Your task to perform on an android device: turn off javascript in the chrome app Image 0: 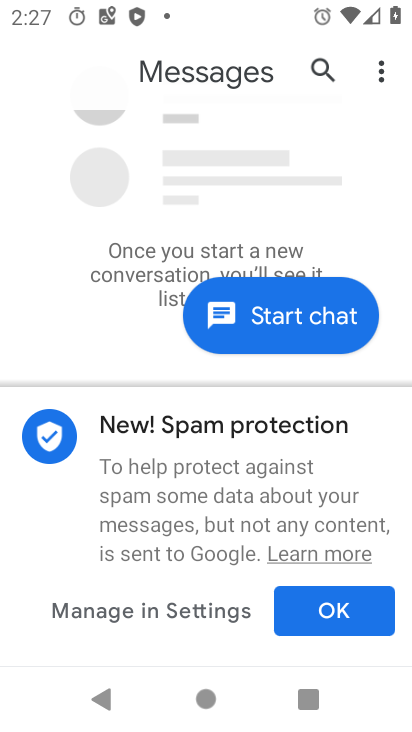
Step 0: press home button
Your task to perform on an android device: turn off javascript in the chrome app Image 1: 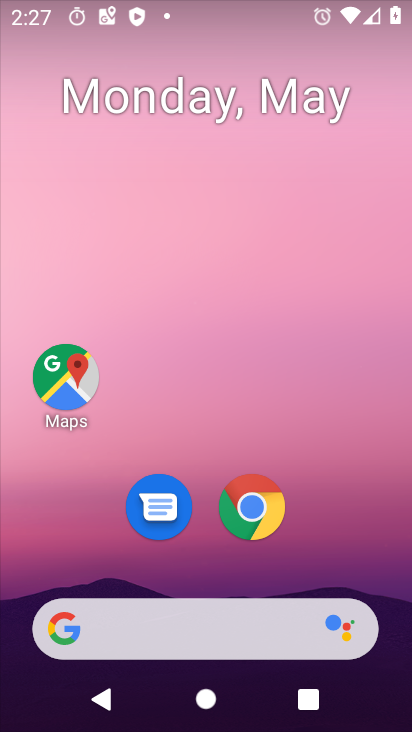
Step 1: click (262, 512)
Your task to perform on an android device: turn off javascript in the chrome app Image 2: 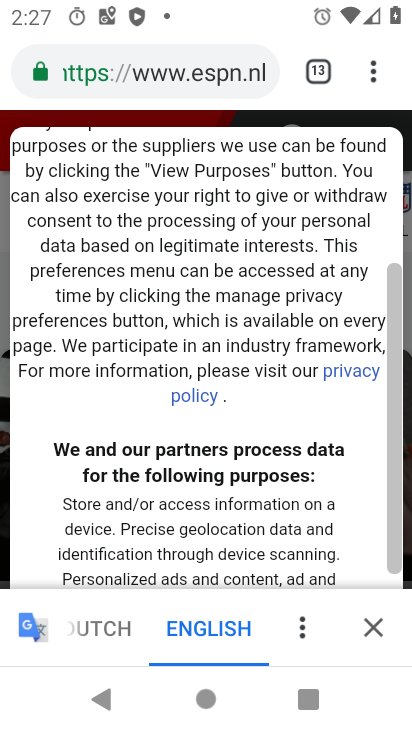
Step 2: click (371, 81)
Your task to perform on an android device: turn off javascript in the chrome app Image 3: 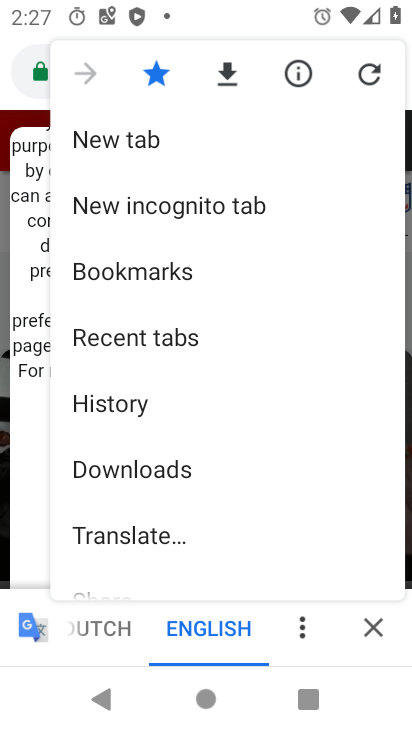
Step 3: drag from (166, 571) to (156, 157)
Your task to perform on an android device: turn off javascript in the chrome app Image 4: 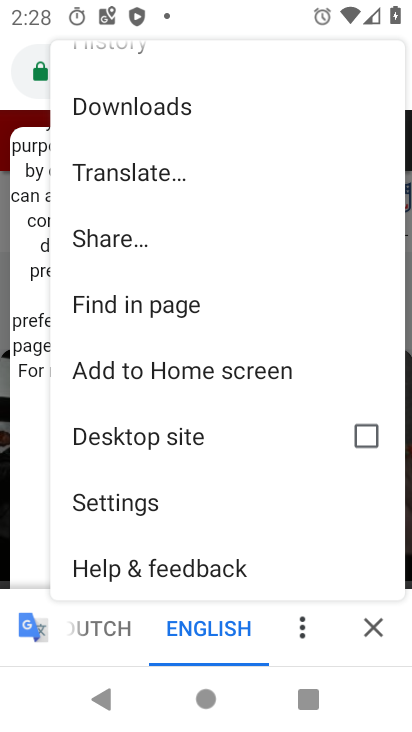
Step 4: click (117, 502)
Your task to perform on an android device: turn off javascript in the chrome app Image 5: 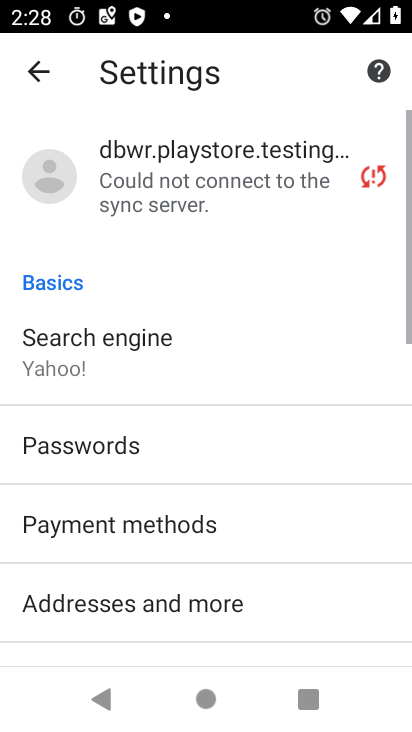
Step 5: drag from (282, 622) to (288, 175)
Your task to perform on an android device: turn off javascript in the chrome app Image 6: 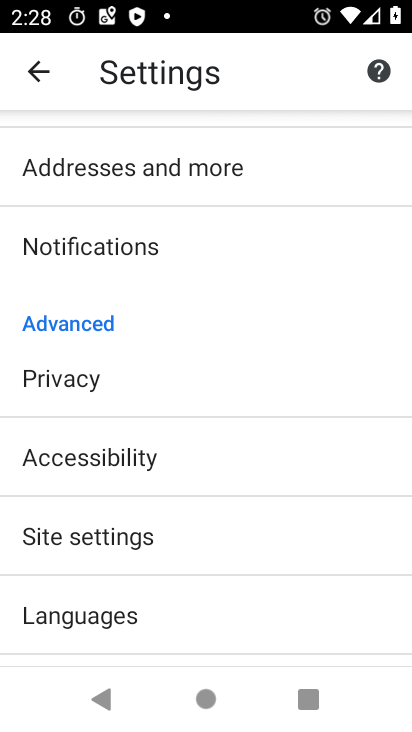
Step 6: drag from (159, 627) to (156, 151)
Your task to perform on an android device: turn off javascript in the chrome app Image 7: 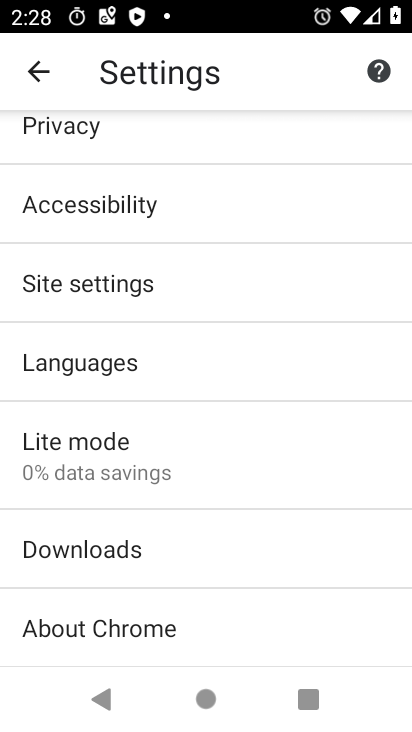
Step 7: click (87, 285)
Your task to perform on an android device: turn off javascript in the chrome app Image 8: 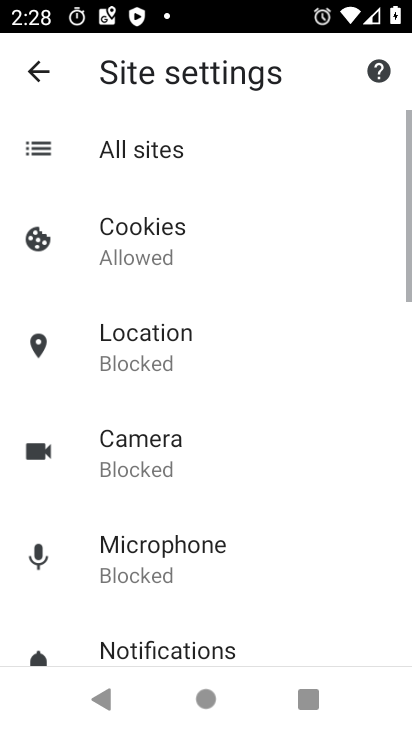
Step 8: drag from (181, 635) to (196, 213)
Your task to perform on an android device: turn off javascript in the chrome app Image 9: 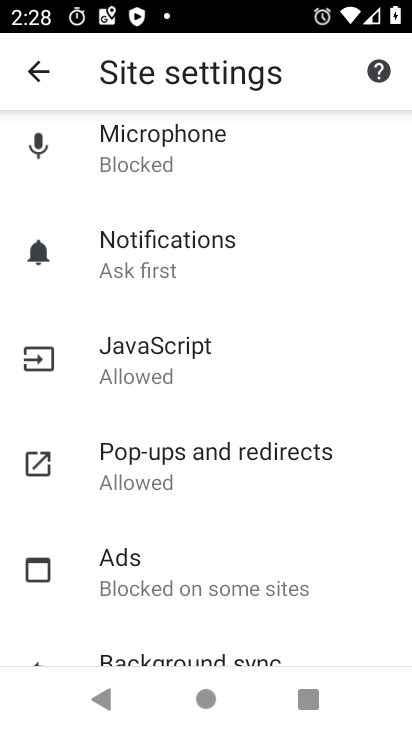
Step 9: drag from (158, 638) to (169, 227)
Your task to perform on an android device: turn off javascript in the chrome app Image 10: 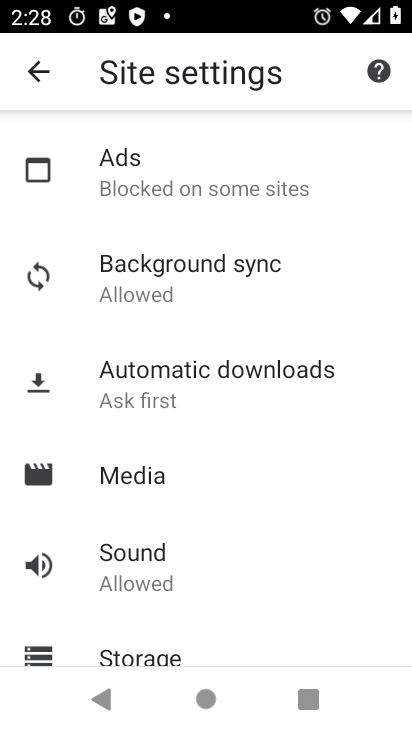
Step 10: drag from (274, 141) to (249, 556)
Your task to perform on an android device: turn off javascript in the chrome app Image 11: 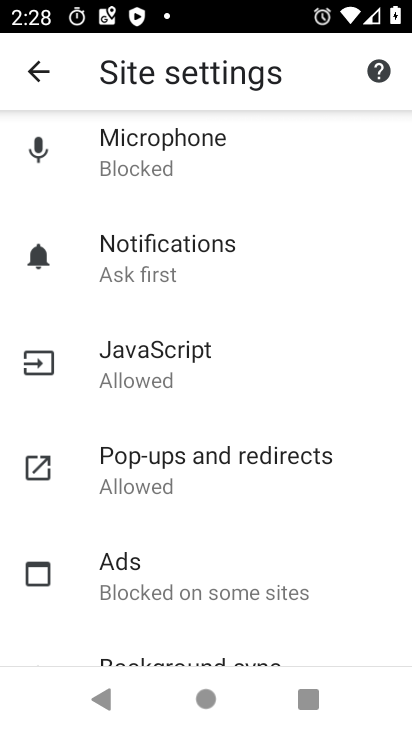
Step 11: click (142, 358)
Your task to perform on an android device: turn off javascript in the chrome app Image 12: 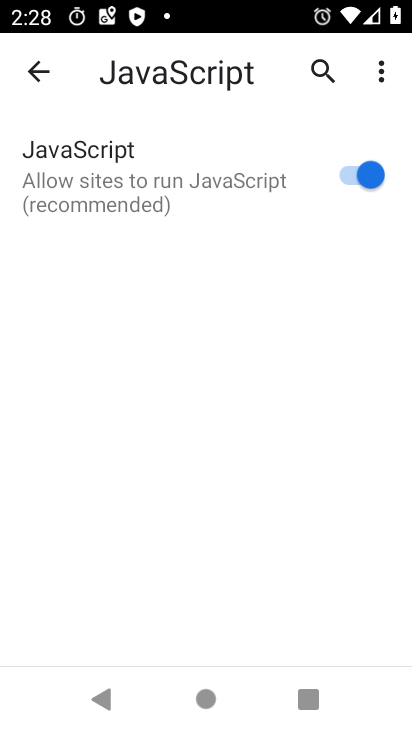
Step 12: click (344, 178)
Your task to perform on an android device: turn off javascript in the chrome app Image 13: 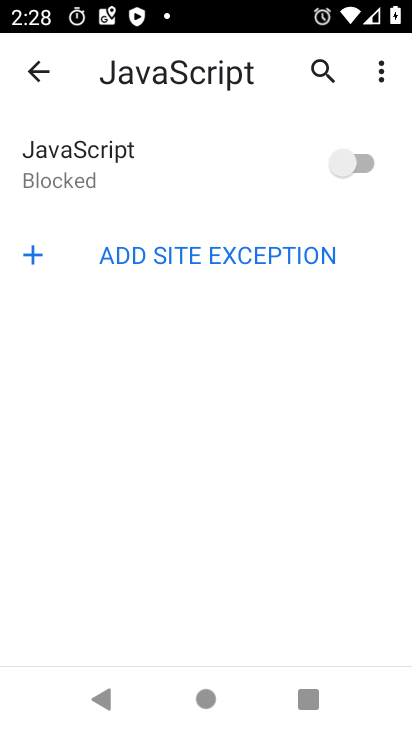
Step 13: task complete